Your task to perform on an android device: turn on priority inbox in the gmail app Image 0: 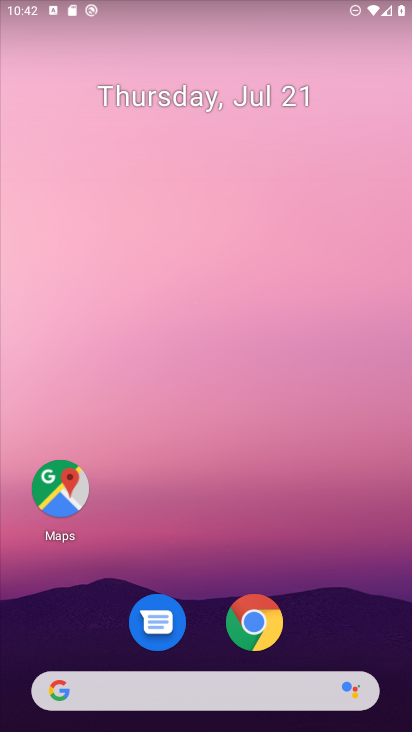
Step 0: drag from (160, 718) to (315, 34)
Your task to perform on an android device: turn on priority inbox in the gmail app Image 1: 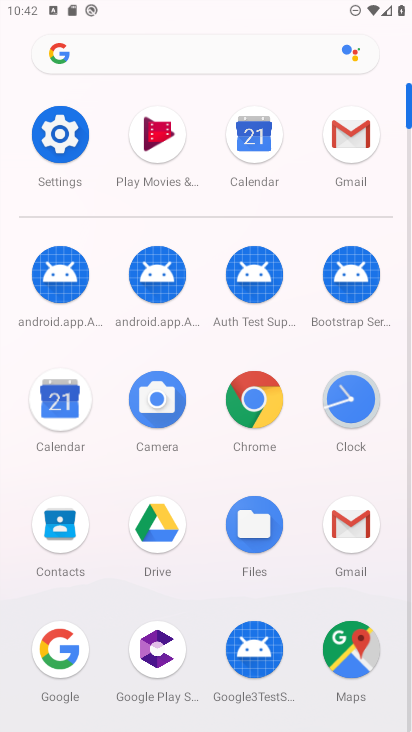
Step 1: click (359, 137)
Your task to perform on an android device: turn on priority inbox in the gmail app Image 2: 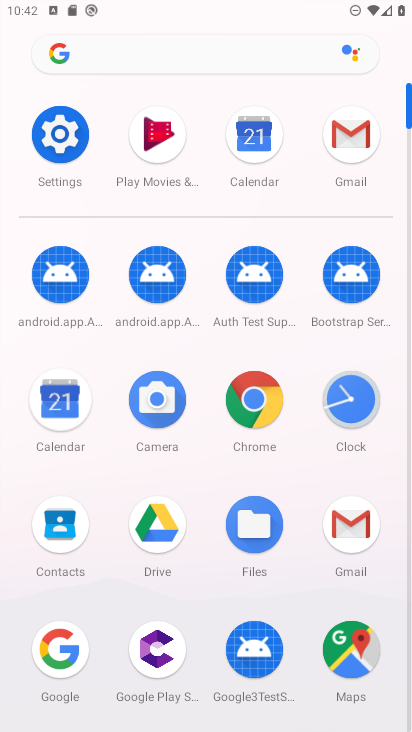
Step 2: click (359, 137)
Your task to perform on an android device: turn on priority inbox in the gmail app Image 3: 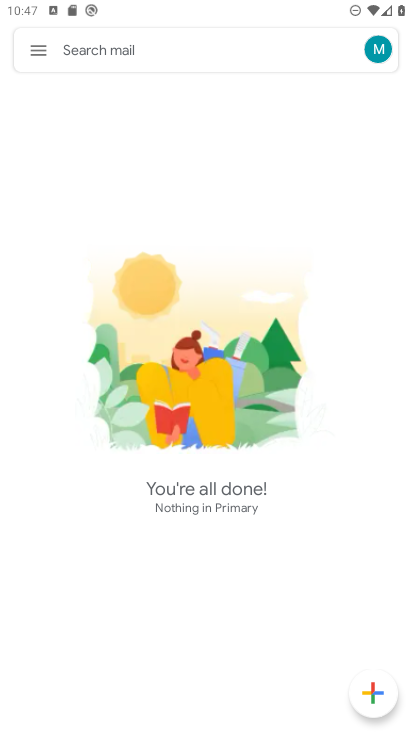
Step 3: click (37, 52)
Your task to perform on an android device: turn on priority inbox in the gmail app Image 4: 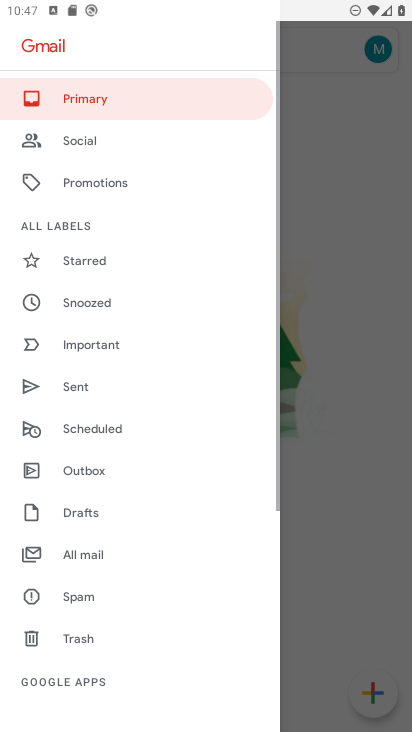
Step 4: drag from (145, 644) to (152, 5)
Your task to perform on an android device: turn on priority inbox in the gmail app Image 5: 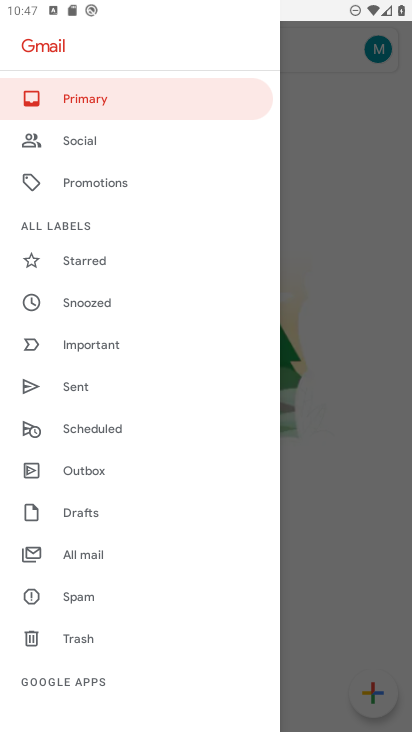
Step 5: drag from (117, 601) to (229, 26)
Your task to perform on an android device: turn on priority inbox in the gmail app Image 6: 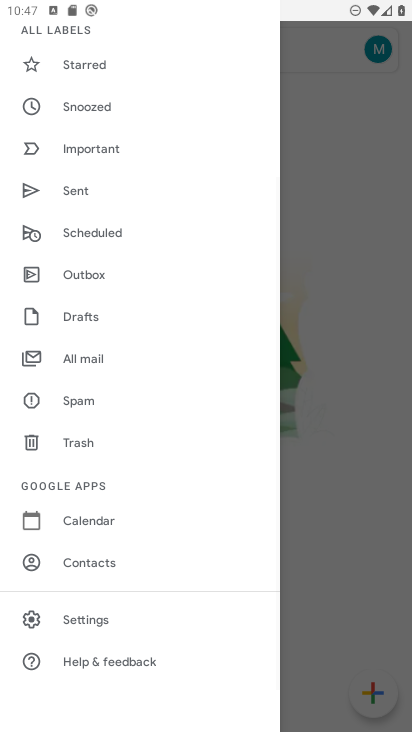
Step 6: click (94, 616)
Your task to perform on an android device: turn on priority inbox in the gmail app Image 7: 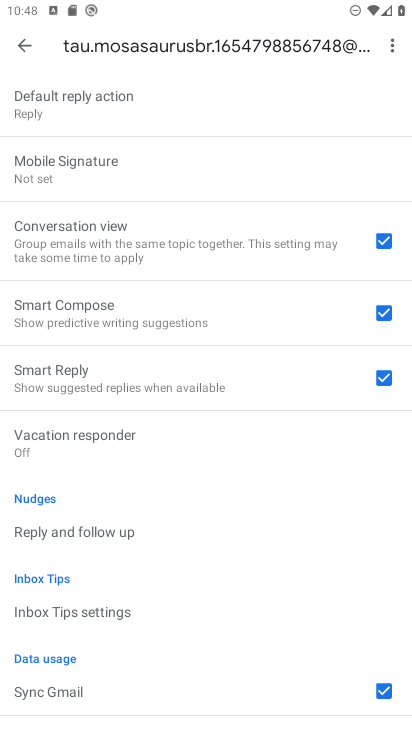
Step 7: drag from (225, 570) to (315, 38)
Your task to perform on an android device: turn on priority inbox in the gmail app Image 8: 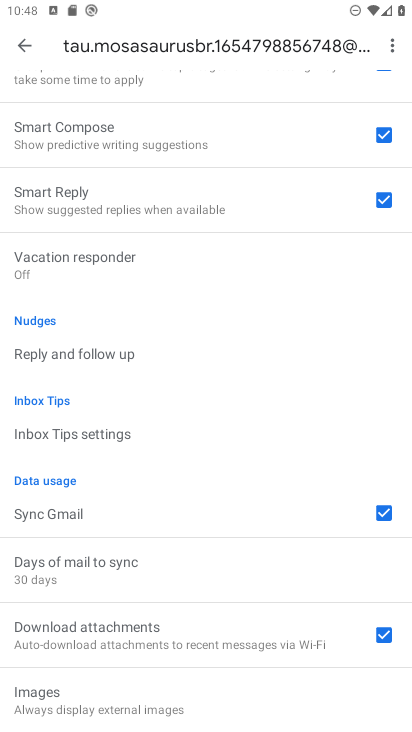
Step 8: drag from (274, 339) to (220, 712)
Your task to perform on an android device: turn on priority inbox in the gmail app Image 9: 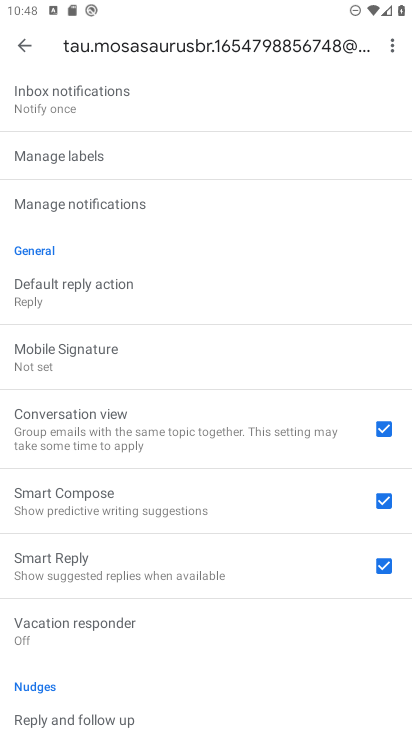
Step 9: drag from (242, 161) to (260, 731)
Your task to perform on an android device: turn on priority inbox in the gmail app Image 10: 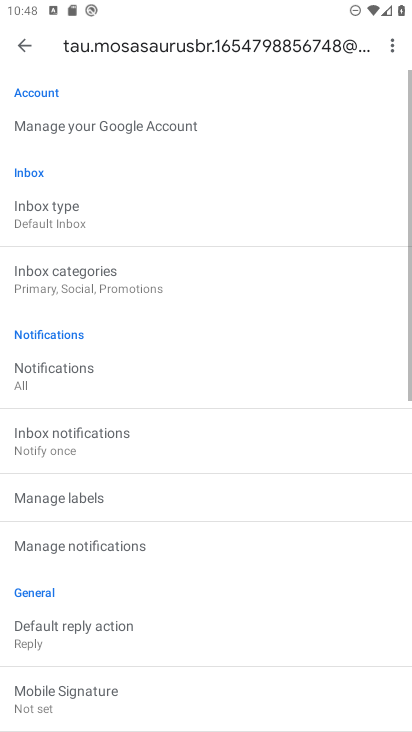
Step 10: click (56, 218)
Your task to perform on an android device: turn on priority inbox in the gmail app Image 11: 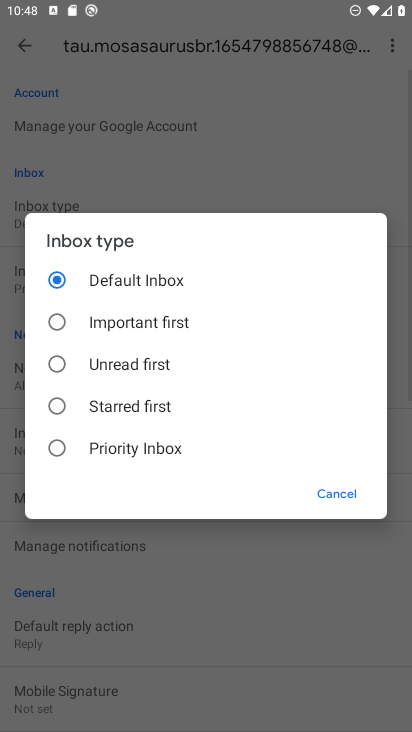
Step 11: click (123, 447)
Your task to perform on an android device: turn on priority inbox in the gmail app Image 12: 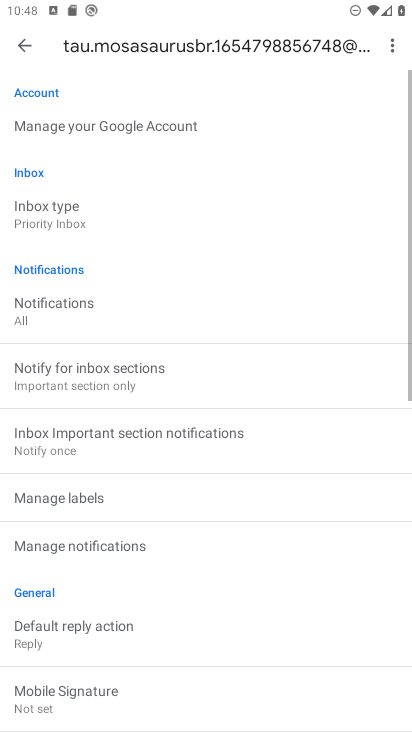
Step 12: task complete